Your task to perform on an android device: Go to battery settings Image 0: 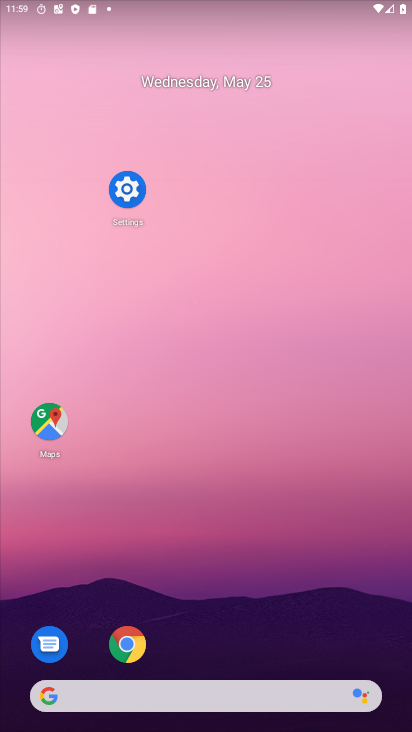
Step 0: drag from (220, 617) to (243, 115)
Your task to perform on an android device: Go to battery settings Image 1: 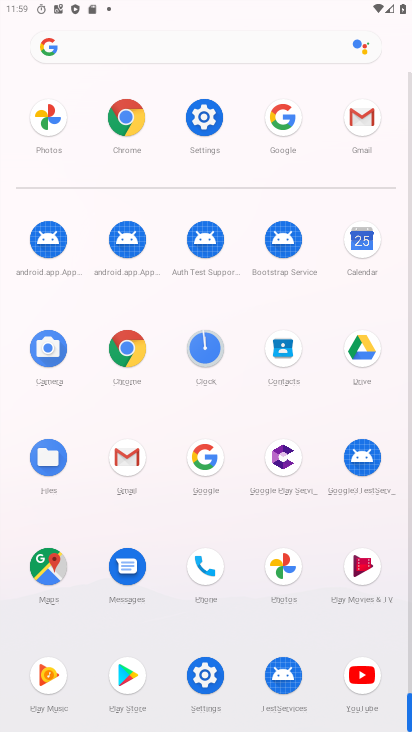
Step 1: click (204, 114)
Your task to perform on an android device: Go to battery settings Image 2: 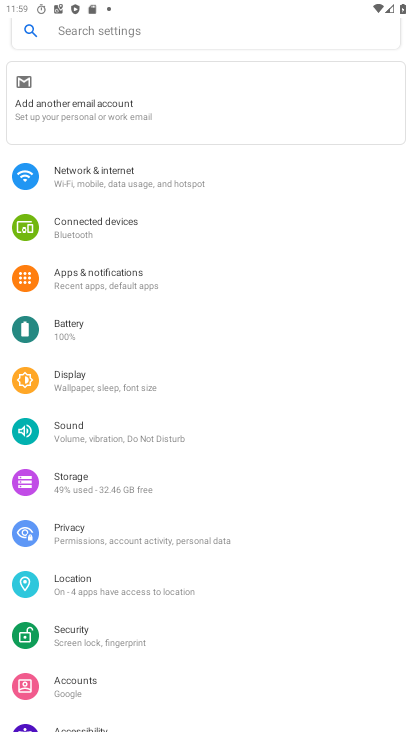
Step 2: click (78, 327)
Your task to perform on an android device: Go to battery settings Image 3: 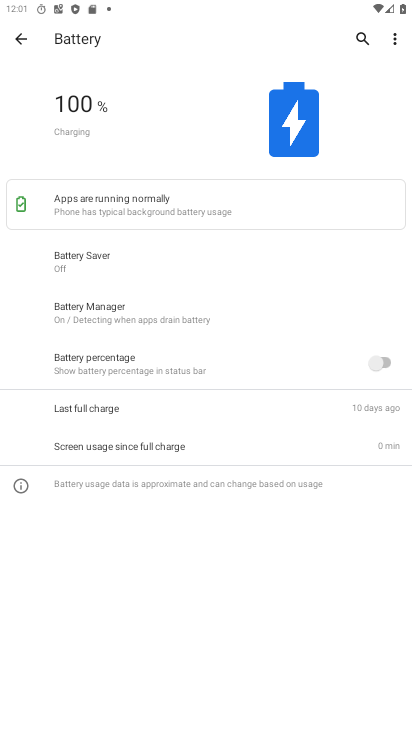
Step 3: task complete